Your task to perform on an android device: turn on the 12-hour format for clock Image 0: 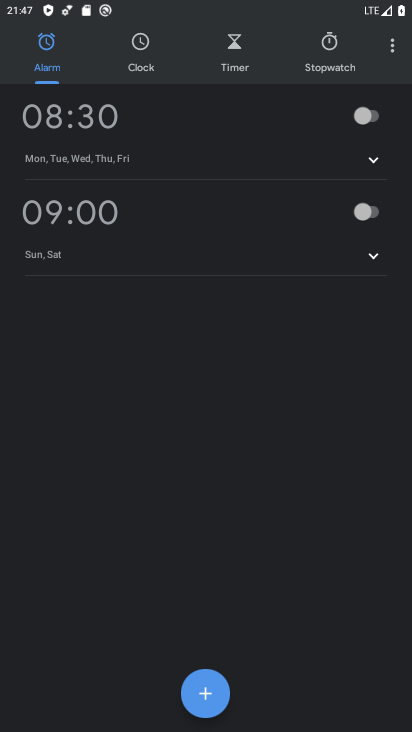
Step 0: click (401, 33)
Your task to perform on an android device: turn on the 12-hour format for clock Image 1: 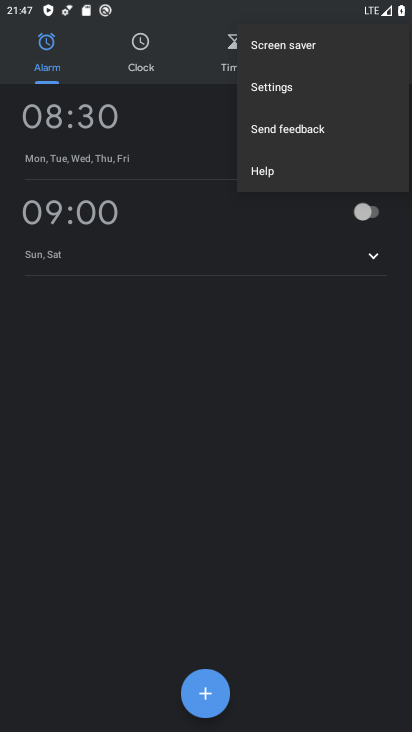
Step 1: click (307, 91)
Your task to perform on an android device: turn on the 12-hour format for clock Image 2: 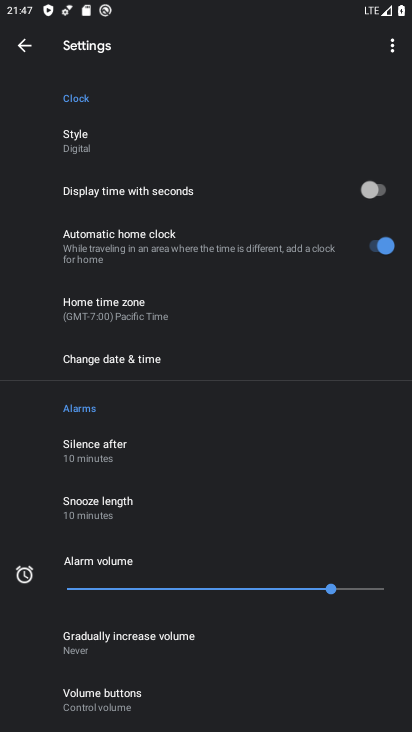
Step 2: click (177, 358)
Your task to perform on an android device: turn on the 12-hour format for clock Image 3: 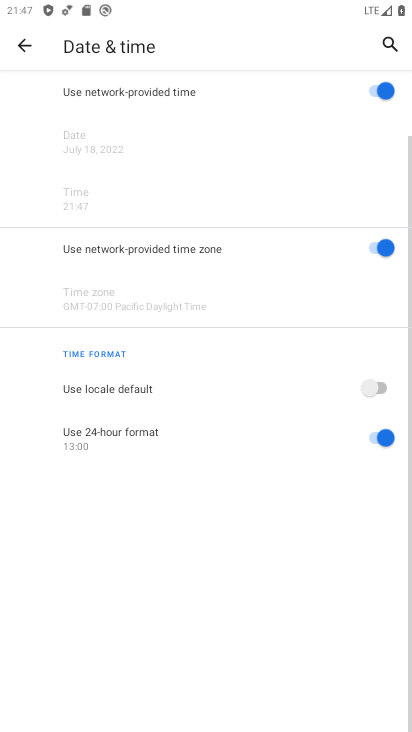
Step 3: click (169, 432)
Your task to perform on an android device: turn on the 12-hour format for clock Image 4: 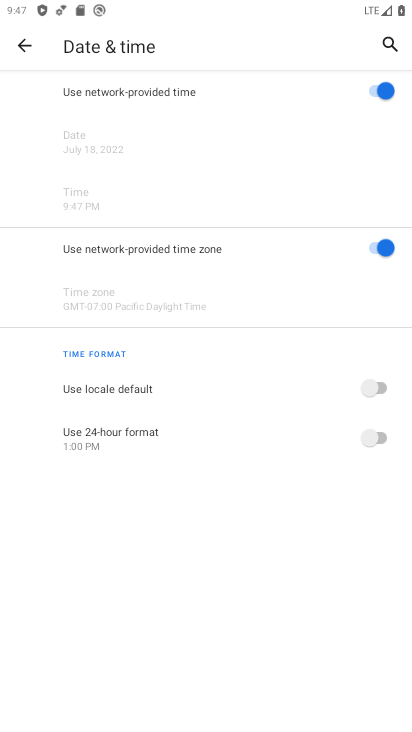
Step 4: click (380, 431)
Your task to perform on an android device: turn on the 12-hour format for clock Image 5: 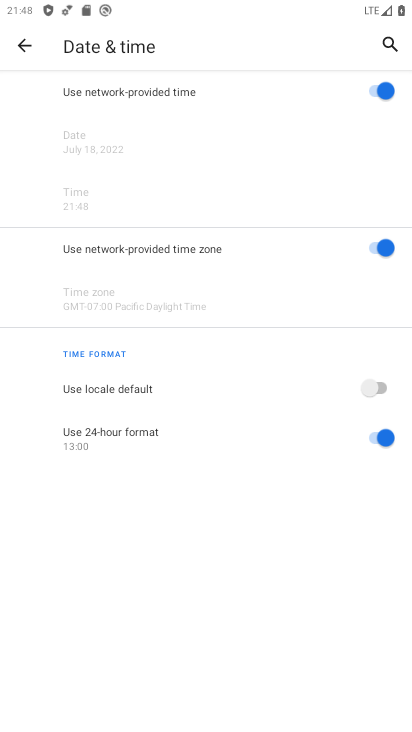
Step 5: task complete